Your task to perform on an android device: turn on wifi Image 0: 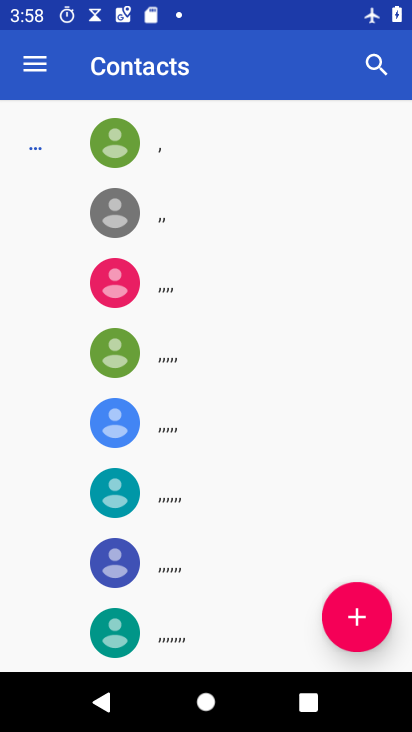
Step 0: press home button
Your task to perform on an android device: turn on wifi Image 1: 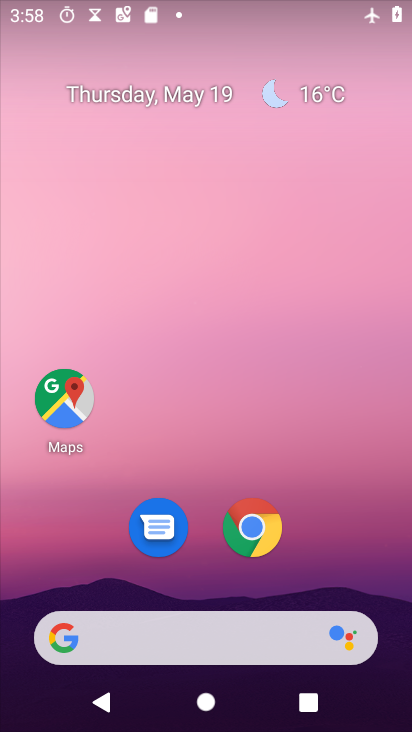
Step 1: drag from (321, 528) to (250, 110)
Your task to perform on an android device: turn on wifi Image 2: 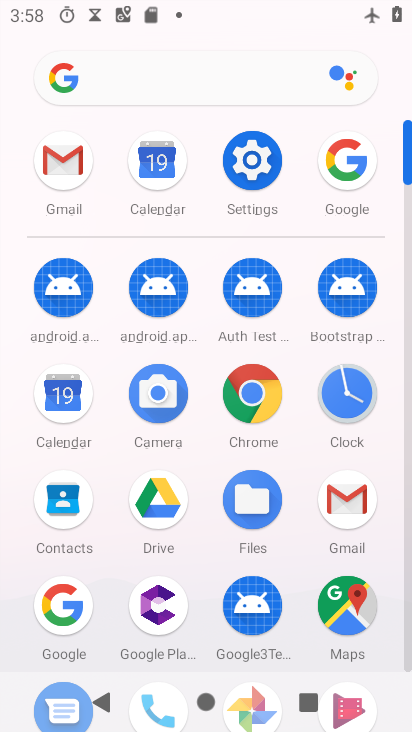
Step 2: click (267, 170)
Your task to perform on an android device: turn on wifi Image 3: 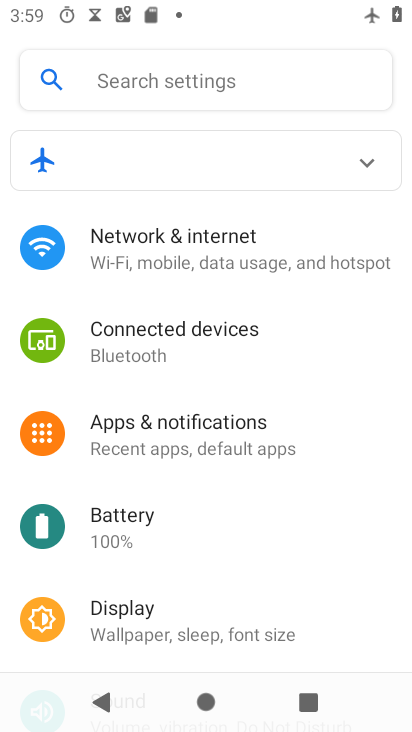
Step 3: click (209, 257)
Your task to perform on an android device: turn on wifi Image 4: 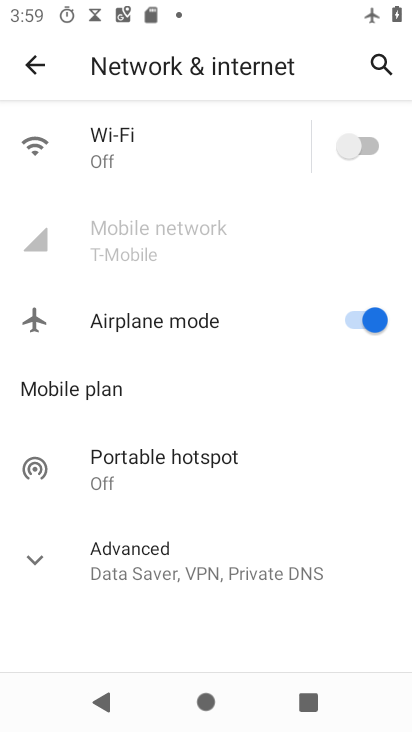
Step 4: click (194, 156)
Your task to perform on an android device: turn on wifi Image 5: 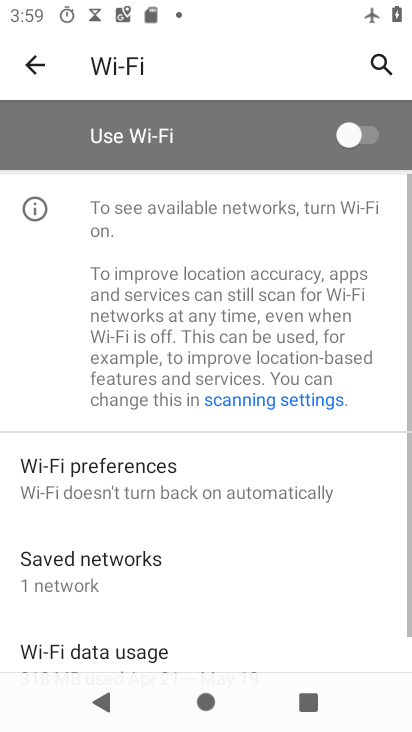
Step 5: click (372, 122)
Your task to perform on an android device: turn on wifi Image 6: 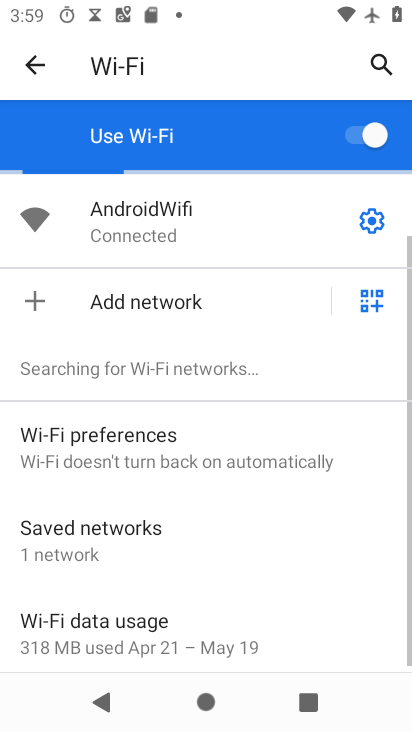
Step 6: task complete